Your task to perform on an android device: Open Google Image 0: 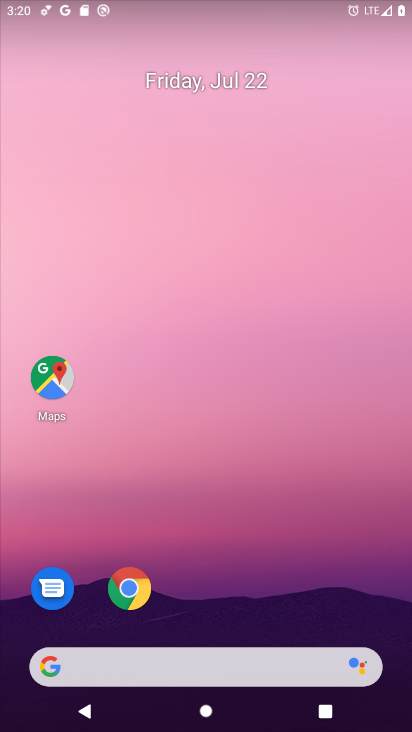
Step 0: drag from (286, 553) to (315, 98)
Your task to perform on an android device: Open Google Image 1: 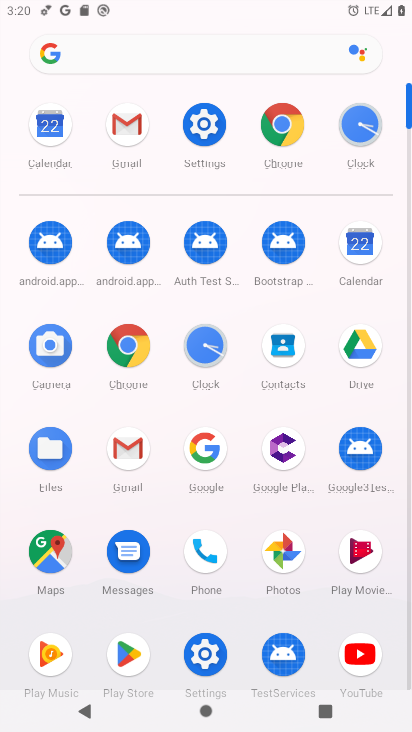
Step 1: click (193, 447)
Your task to perform on an android device: Open Google Image 2: 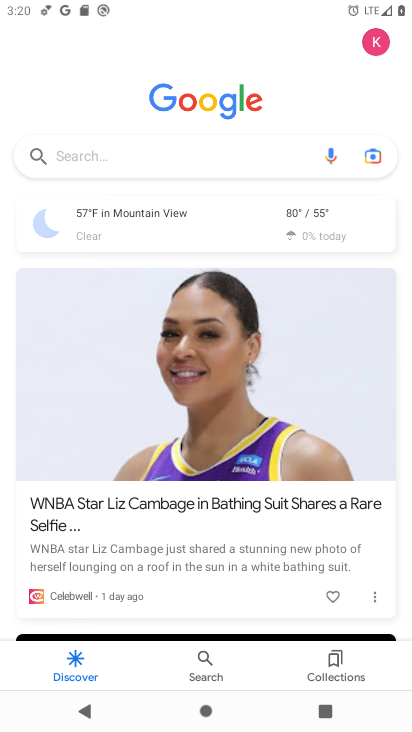
Step 2: task complete